Your task to perform on an android device: move an email to a new category in the gmail app Image 0: 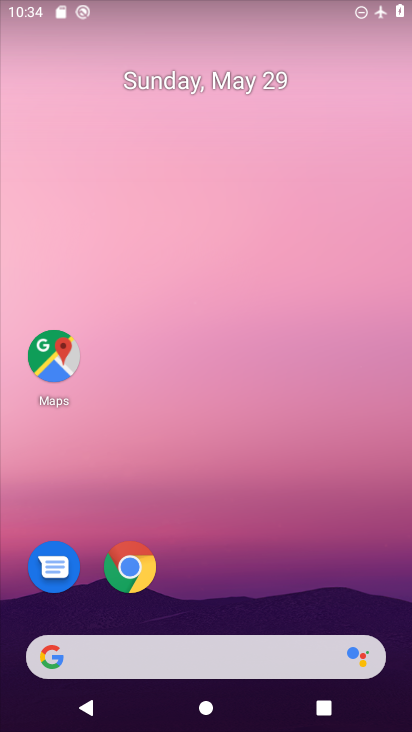
Step 0: drag from (357, 602) to (316, 40)
Your task to perform on an android device: move an email to a new category in the gmail app Image 1: 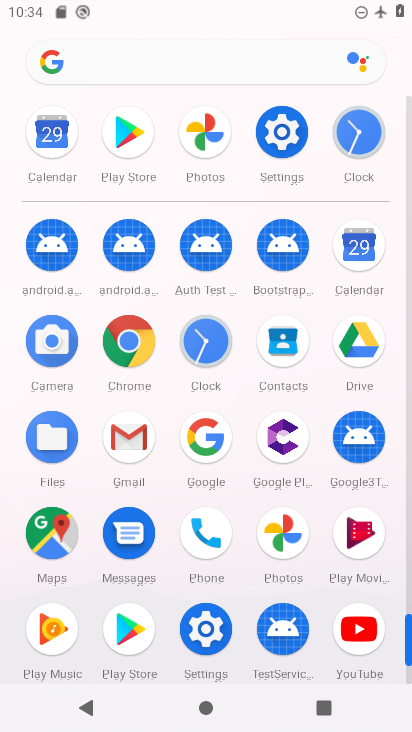
Step 1: click (127, 434)
Your task to perform on an android device: move an email to a new category in the gmail app Image 2: 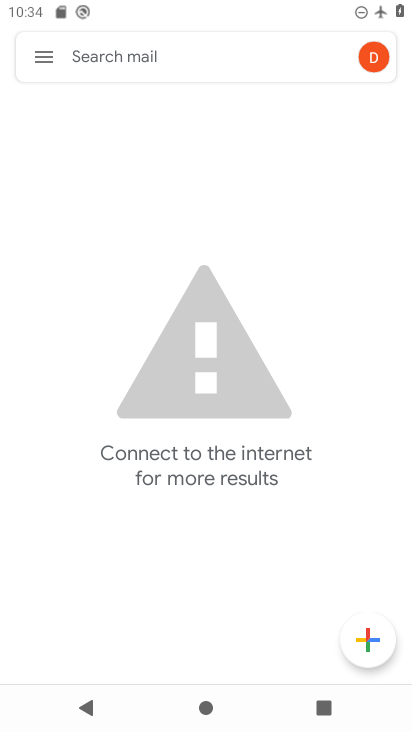
Step 2: click (46, 54)
Your task to perform on an android device: move an email to a new category in the gmail app Image 3: 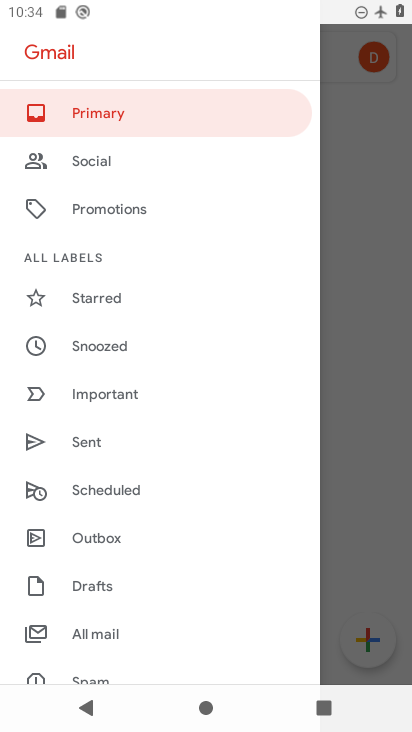
Step 3: drag from (128, 629) to (134, 325)
Your task to perform on an android device: move an email to a new category in the gmail app Image 4: 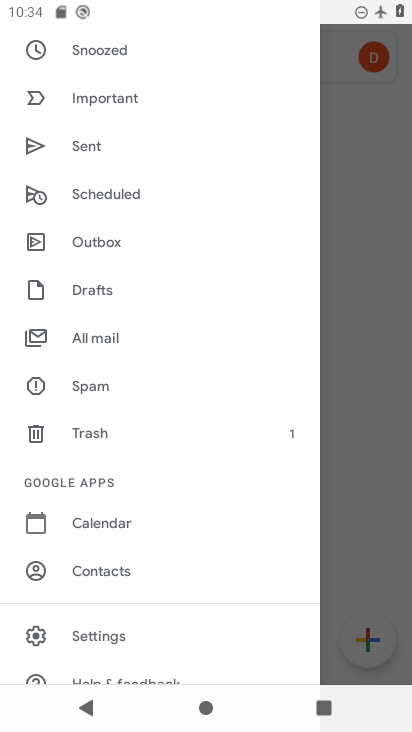
Step 4: click (94, 327)
Your task to perform on an android device: move an email to a new category in the gmail app Image 5: 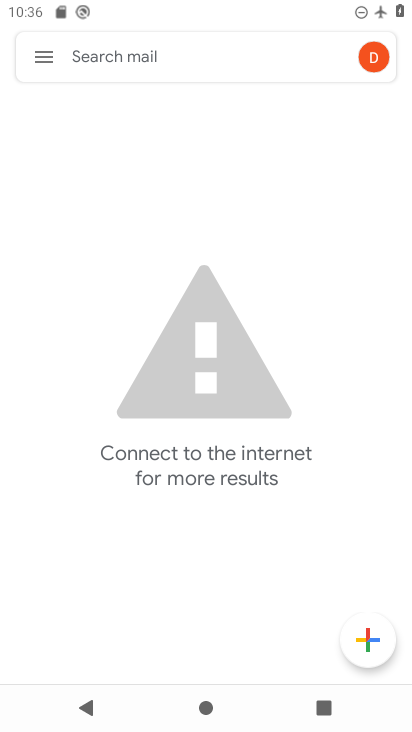
Step 5: task complete